Your task to perform on an android device: open the mobile data screen to see how much data has been used Image 0: 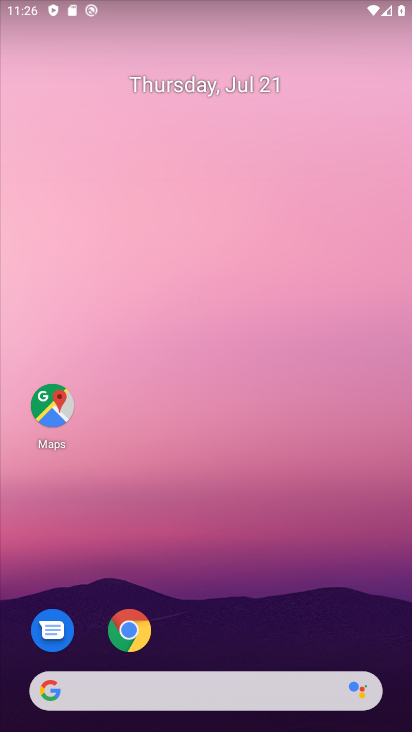
Step 0: press home button
Your task to perform on an android device: open the mobile data screen to see how much data has been used Image 1: 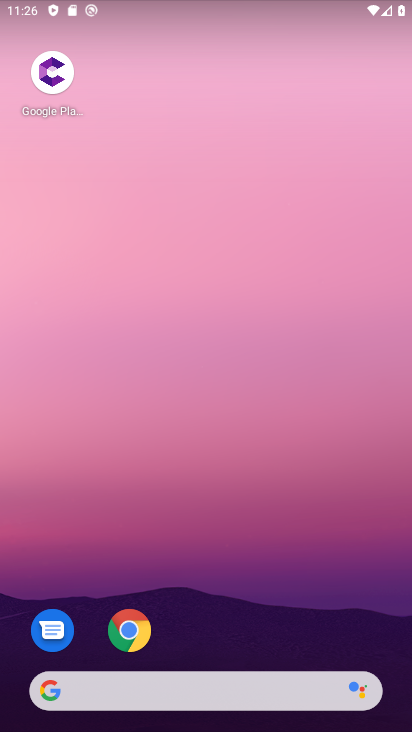
Step 1: drag from (298, 598) to (198, 132)
Your task to perform on an android device: open the mobile data screen to see how much data has been used Image 2: 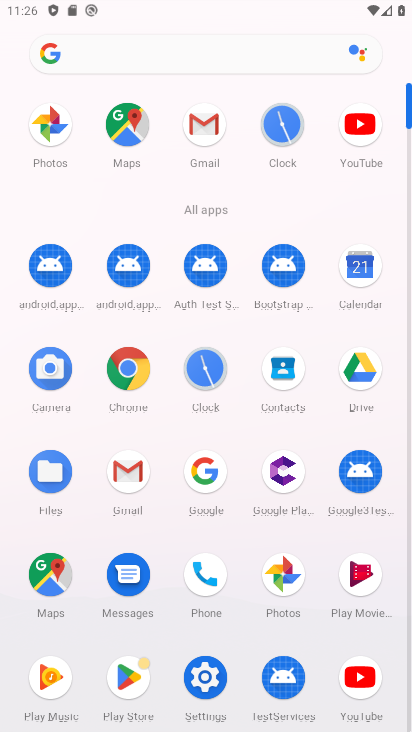
Step 2: click (196, 679)
Your task to perform on an android device: open the mobile data screen to see how much data has been used Image 3: 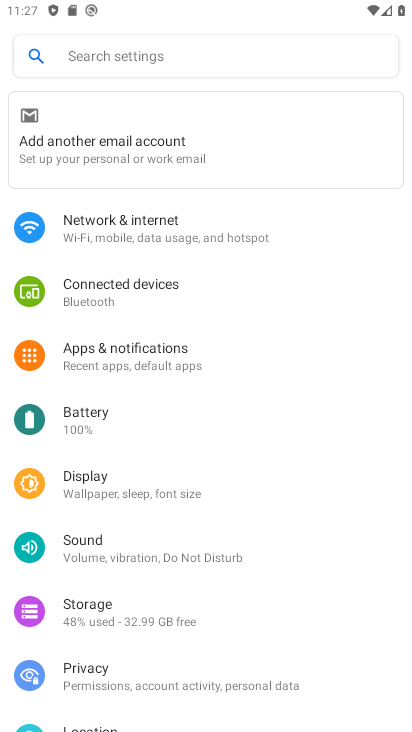
Step 3: click (181, 229)
Your task to perform on an android device: open the mobile data screen to see how much data has been used Image 4: 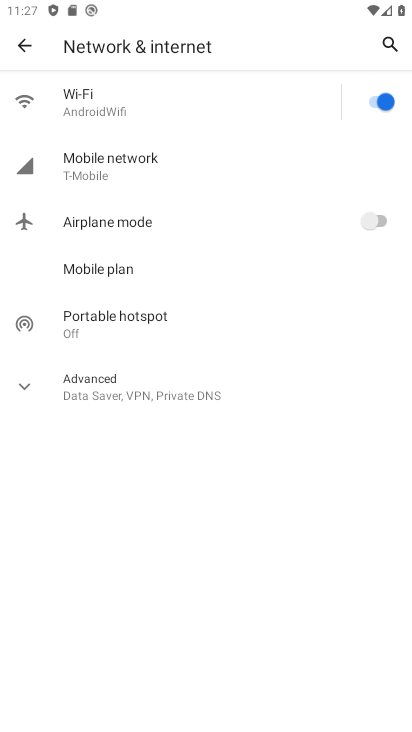
Step 4: click (133, 171)
Your task to perform on an android device: open the mobile data screen to see how much data has been used Image 5: 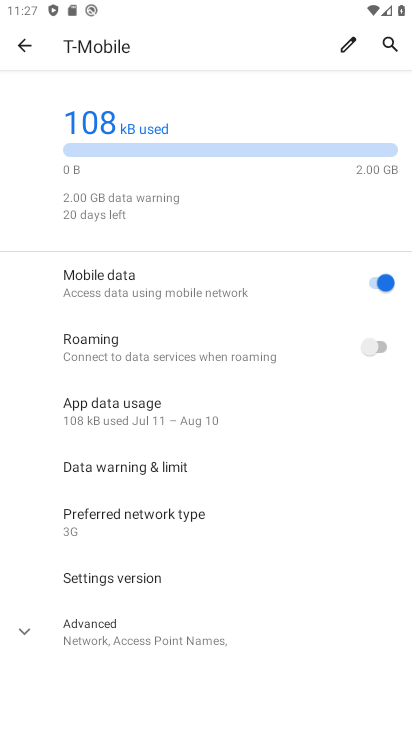
Step 5: task complete